Your task to perform on an android device: turn on airplane mode Image 0: 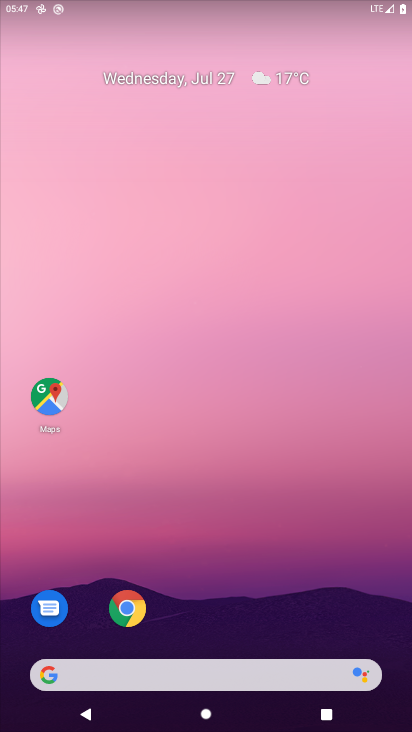
Step 0: press home button
Your task to perform on an android device: turn on airplane mode Image 1: 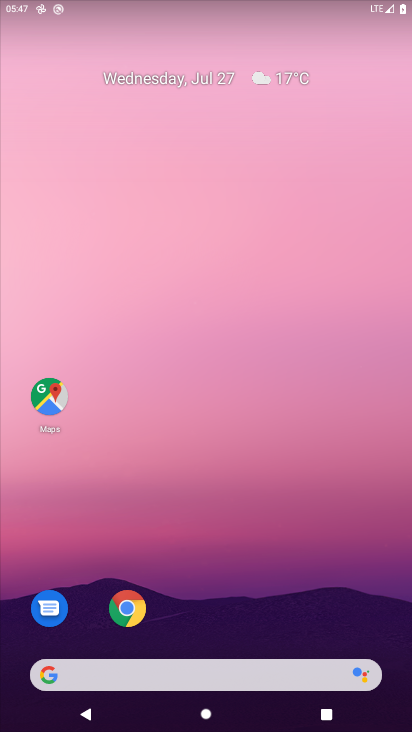
Step 1: drag from (233, 8) to (191, 281)
Your task to perform on an android device: turn on airplane mode Image 2: 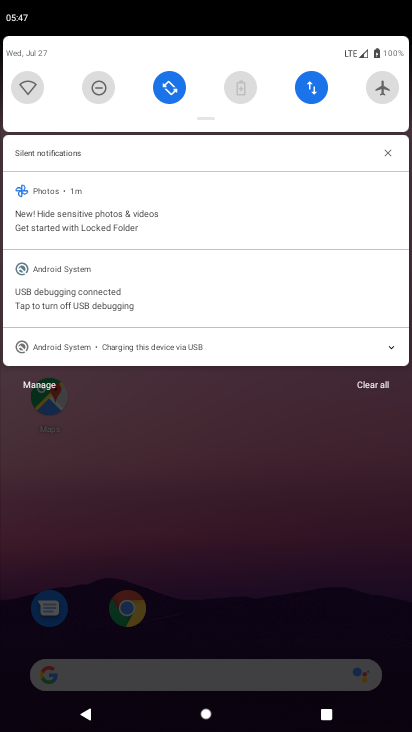
Step 2: click (379, 80)
Your task to perform on an android device: turn on airplane mode Image 3: 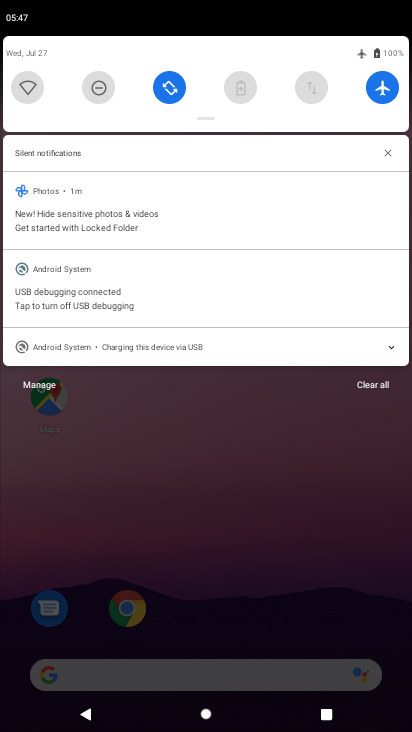
Step 3: task complete